Your task to perform on an android device: Toggle the flashlight Image 0: 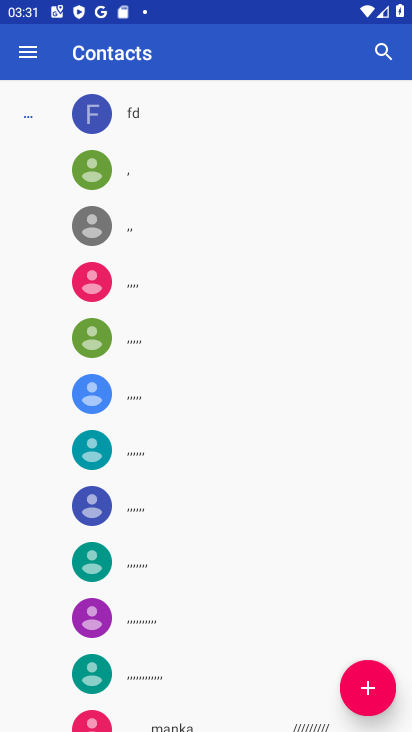
Step 0: press home button
Your task to perform on an android device: Toggle the flashlight Image 1: 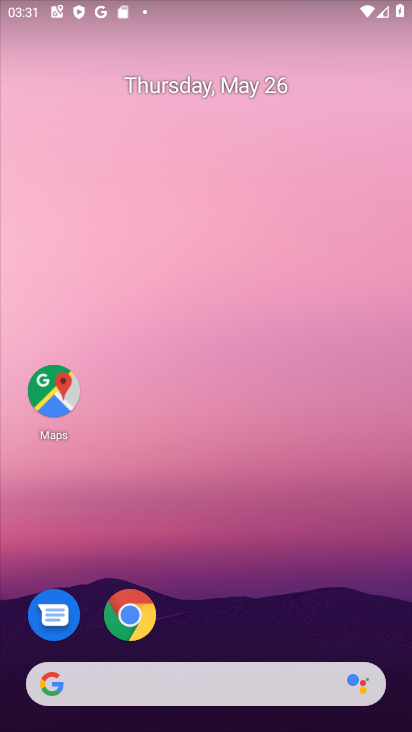
Step 1: drag from (234, 631) to (214, 0)
Your task to perform on an android device: Toggle the flashlight Image 2: 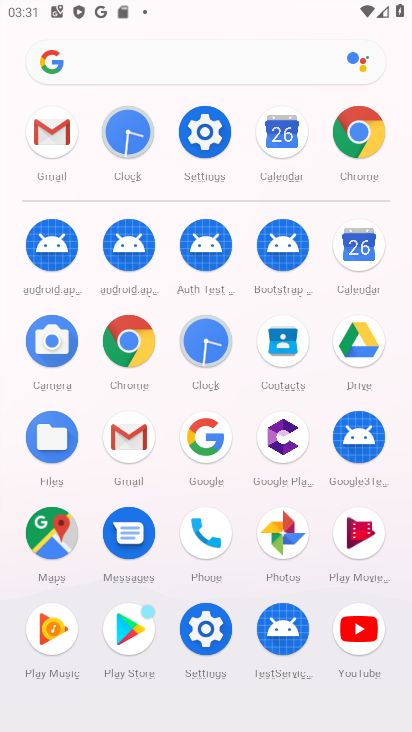
Step 2: click (198, 166)
Your task to perform on an android device: Toggle the flashlight Image 3: 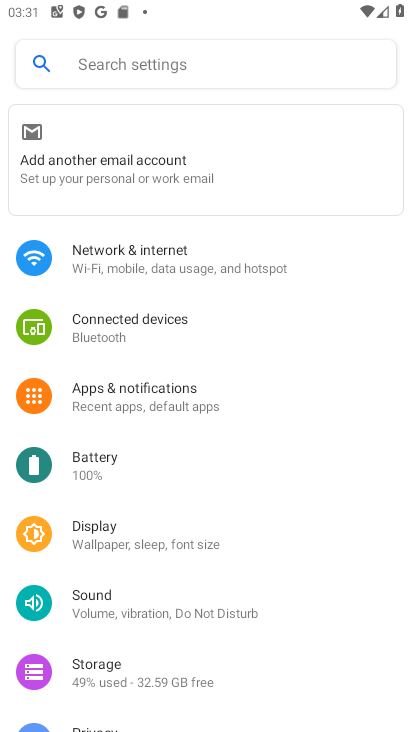
Step 3: task complete